Your task to perform on an android device: empty trash in google photos Image 0: 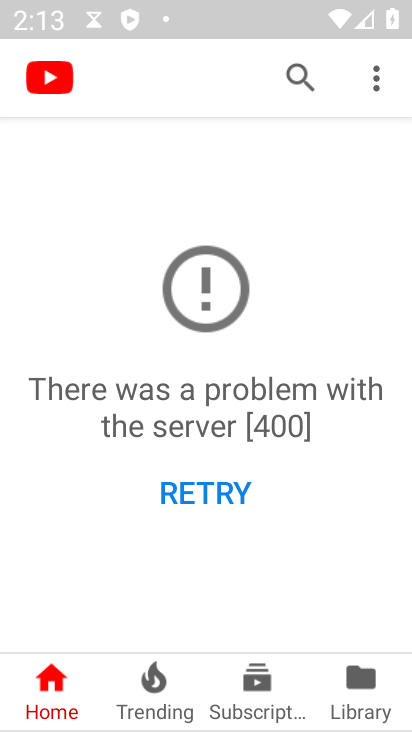
Step 0: press home button
Your task to perform on an android device: empty trash in google photos Image 1: 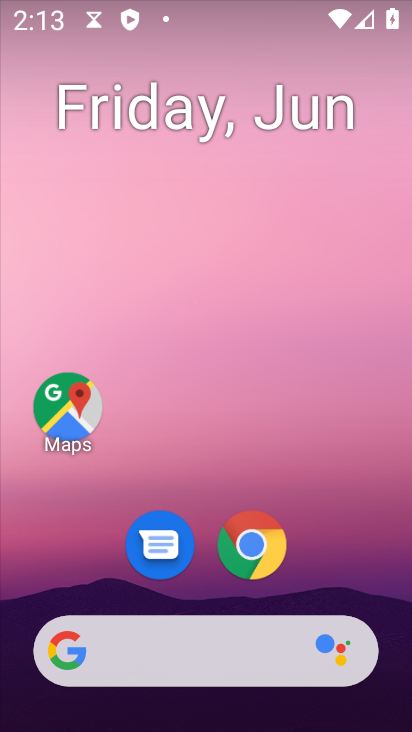
Step 1: drag from (186, 597) to (239, 6)
Your task to perform on an android device: empty trash in google photos Image 2: 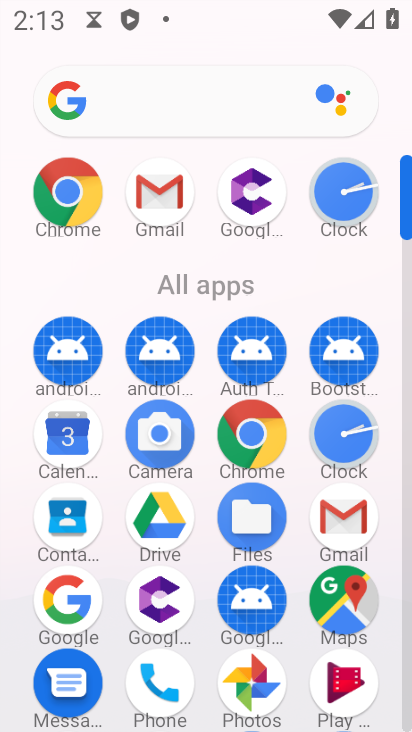
Step 2: drag from (190, 656) to (210, 453)
Your task to perform on an android device: empty trash in google photos Image 3: 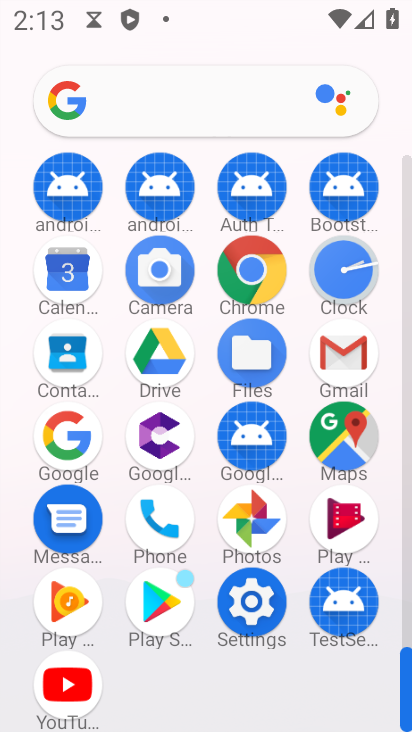
Step 3: click (254, 534)
Your task to perform on an android device: empty trash in google photos Image 4: 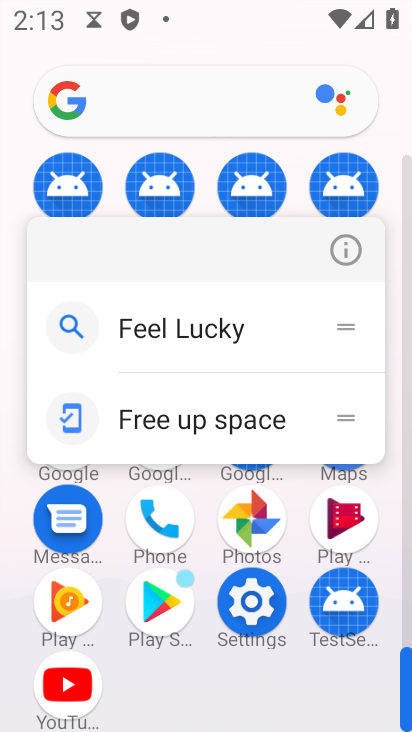
Step 4: click (254, 534)
Your task to perform on an android device: empty trash in google photos Image 5: 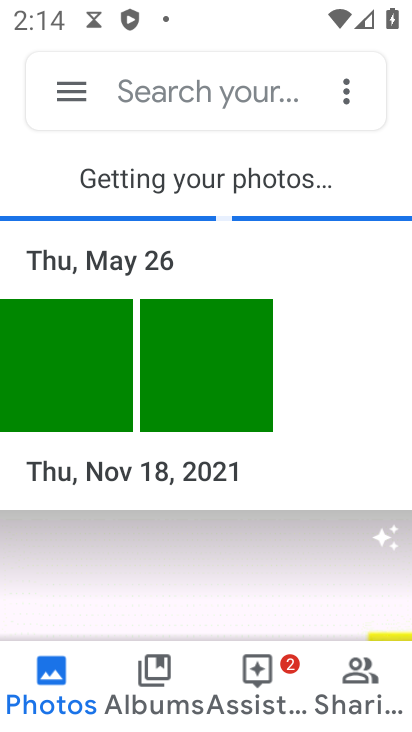
Step 5: click (71, 109)
Your task to perform on an android device: empty trash in google photos Image 6: 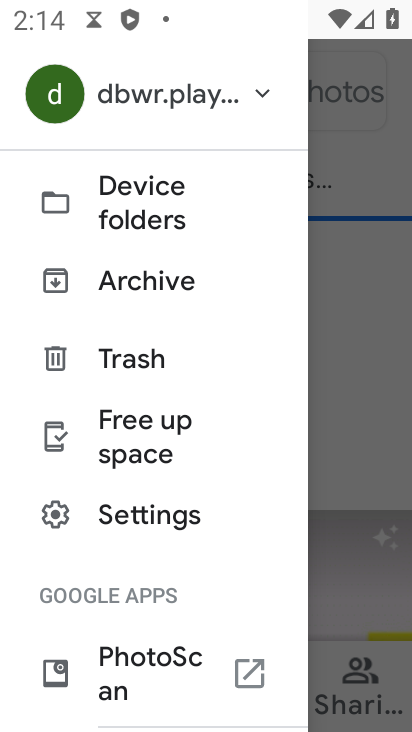
Step 6: click (139, 363)
Your task to perform on an android device: empty trash in google photos Image 7: 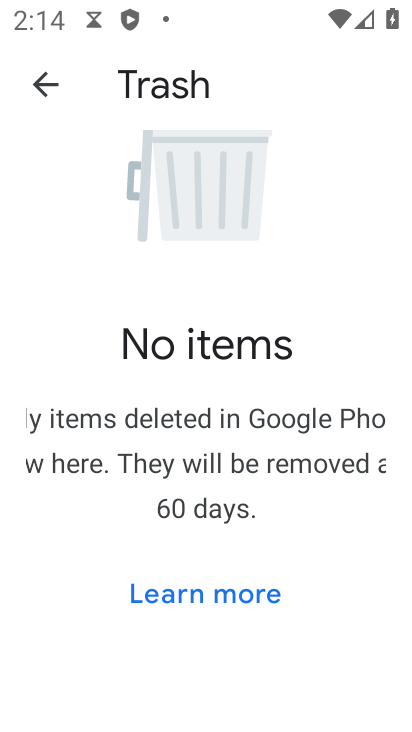
Step 7: click (191, 593)
Your task to perform on an android device: empty trash in google photos Image 8: 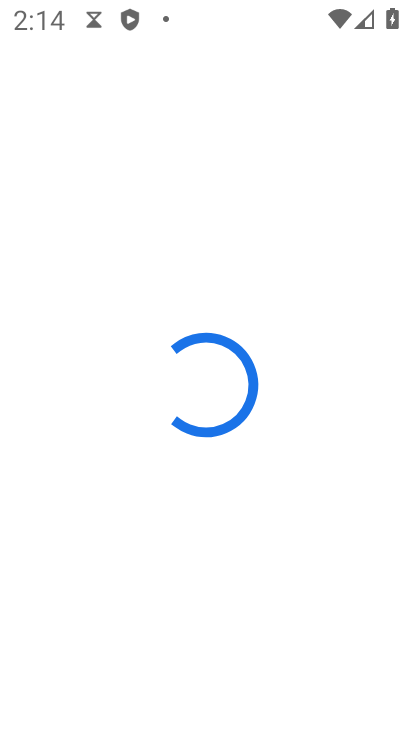
Step 8: task complete